Your task to perform on an android device: Check the news Image 0: 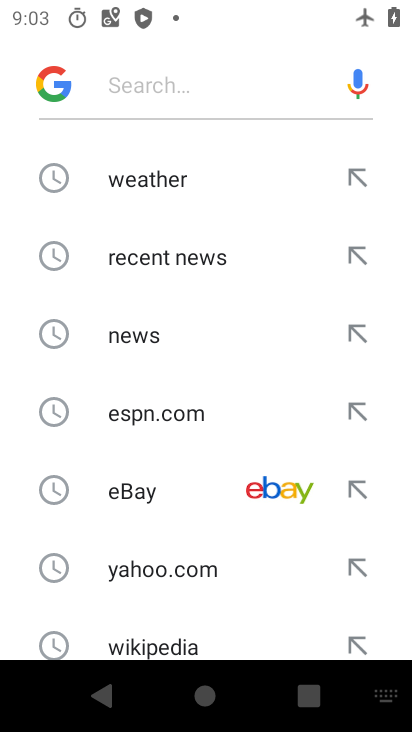
Step 0: click (193, 331)
Your task to perform on an android device: Check the news Image 1: 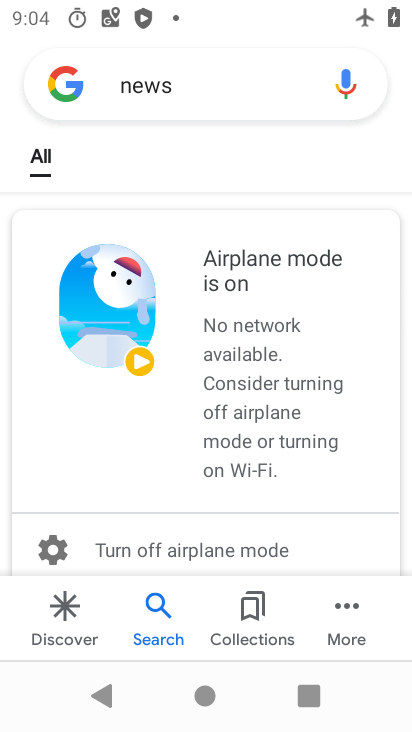
Step 1: task complete